Your task to perform on an android device: Go to Android settings Image 0: 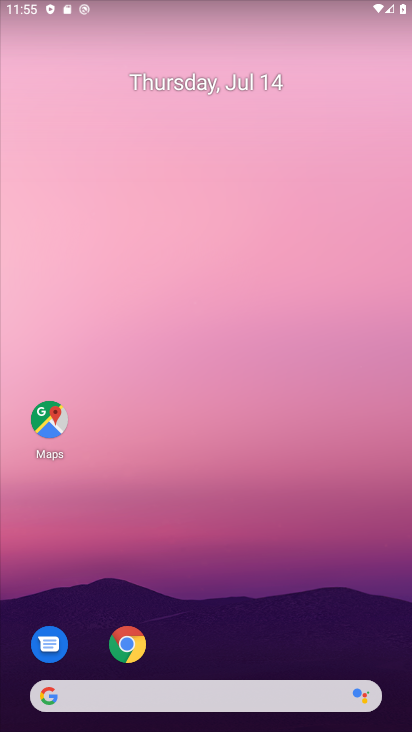
Step 0: drag from (211, 673) to (201, 16)
Your task to perform on an android device: Go to Android settings Image 1: 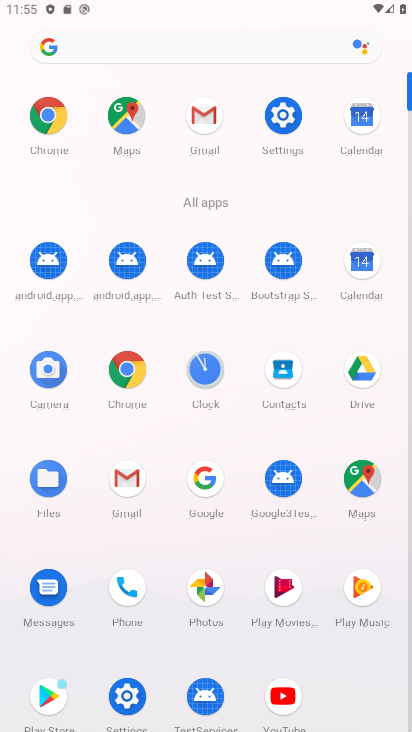
Step 1: click (132, 683)
Your task to perform on an android device: Go to Android settings Image 2: 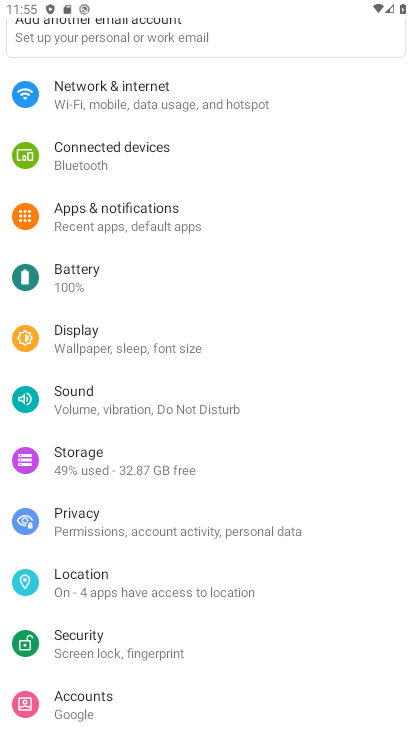
Step 2: click (140, 107)
Your task to perform on an android device: Go to Android settings Image 3: 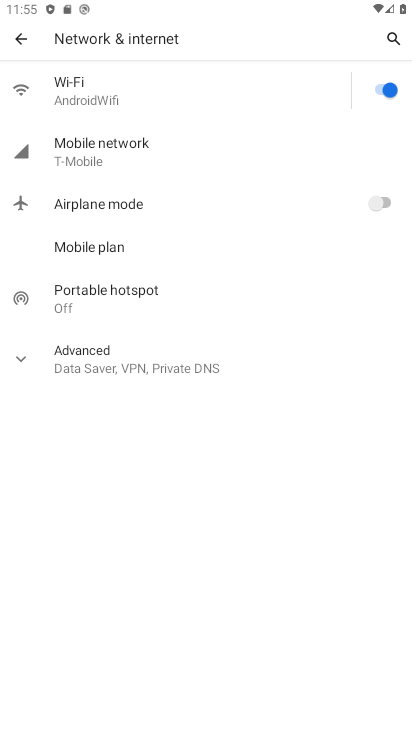
Step 3: click (30, 46)
Your task to perform on an android device: Go to Android settings Image 4: 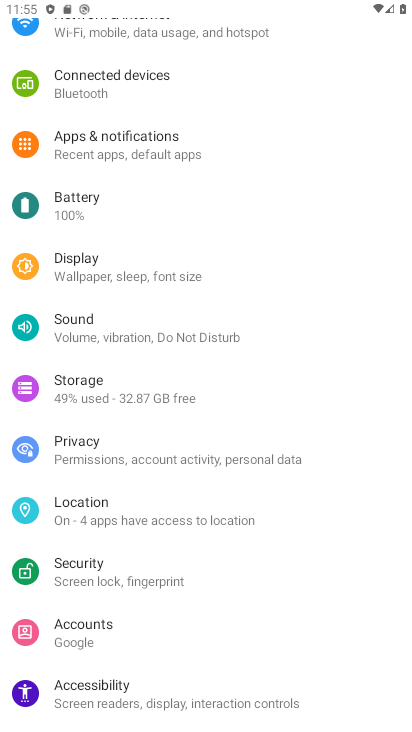
Step 4: task complete